Your task to perform on an android device: snooze an email in the gmail app Image 0: 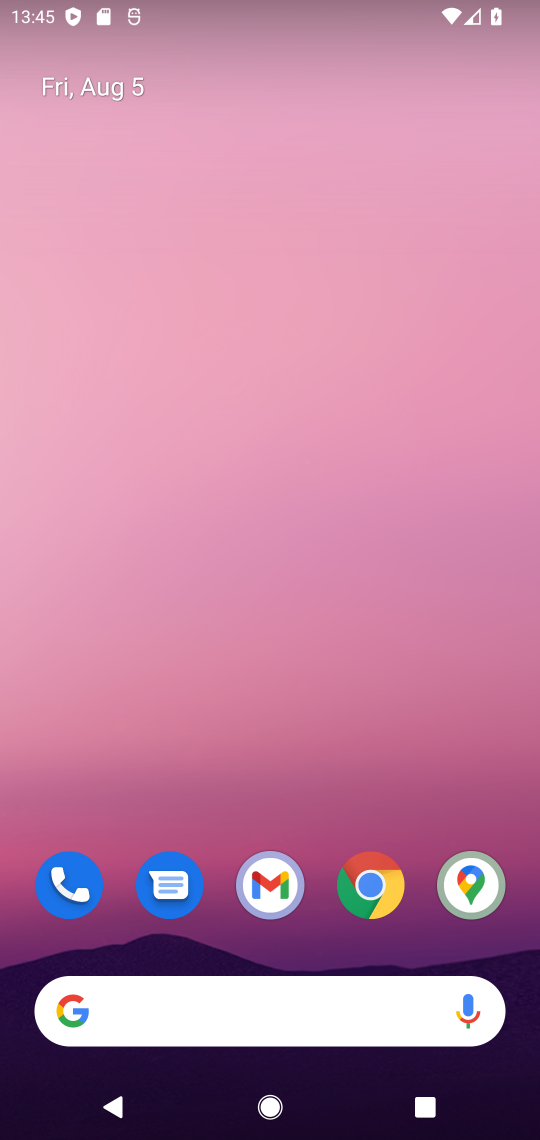
Step 0: click (258, 882)
Your task to perform on an android device: snooze an email in the gmail app Image 1: 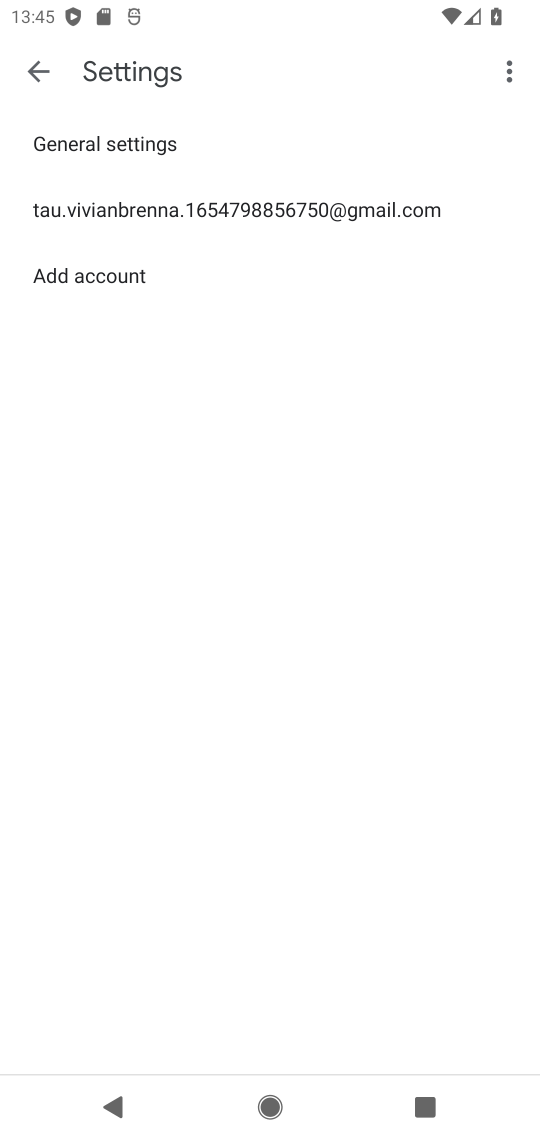
Step 1: click (31, 82)
Your task to perform on an android device: snooze an email in the gmail app Image 2: 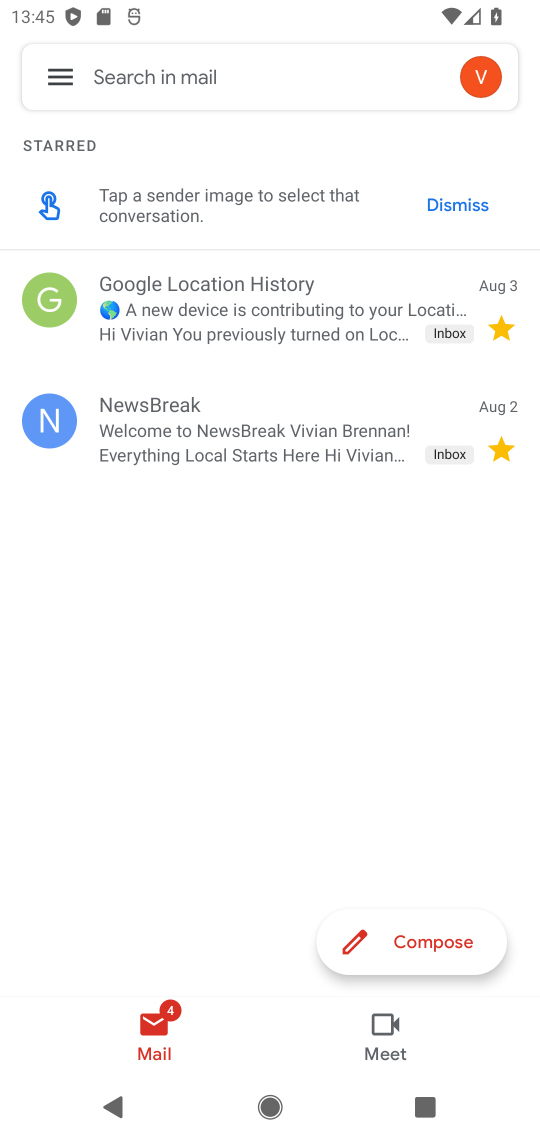
Step 2: click (348, 467)
Your task to perform on an android device: snooze an email in the gmail app Image 3: 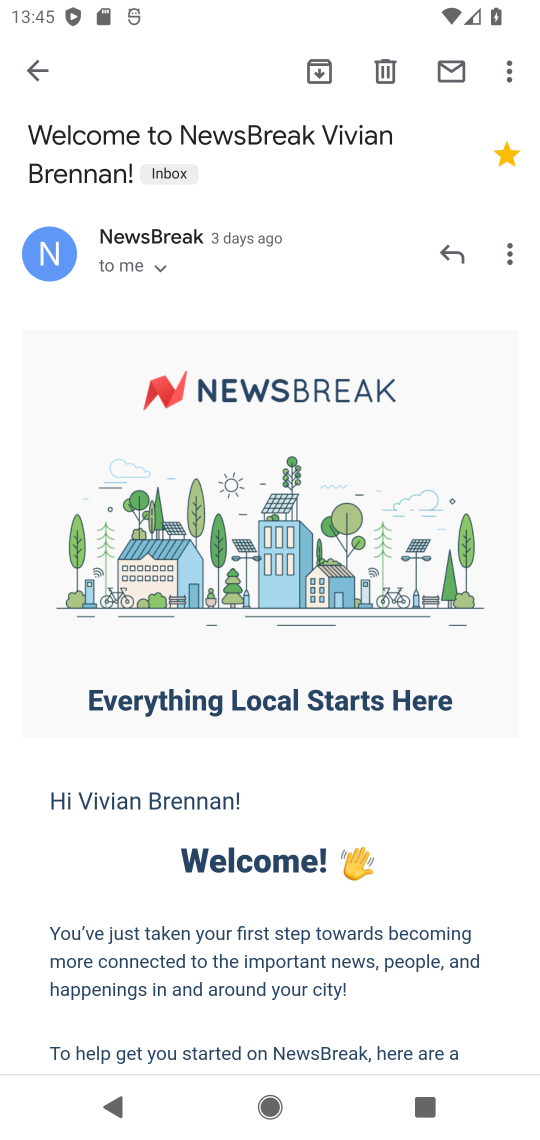
Step 3: click (513, 81)
Your task to perform on an android device: snooze an email in the gmail app Image 4: 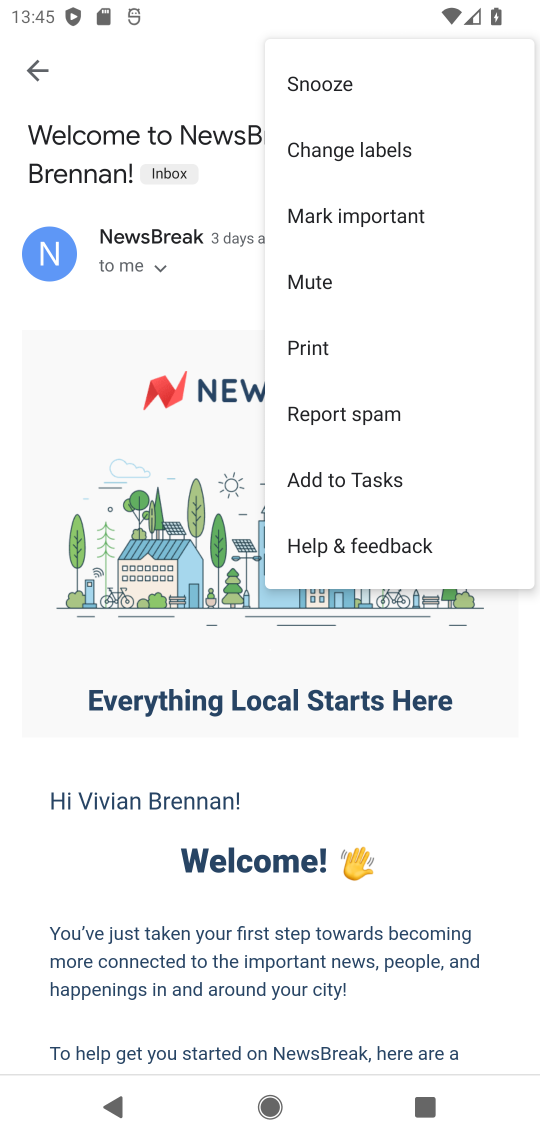
Step 4: click (324, 81)
Your task to perform on an android device: snooze an email in the gmail app Image 5: 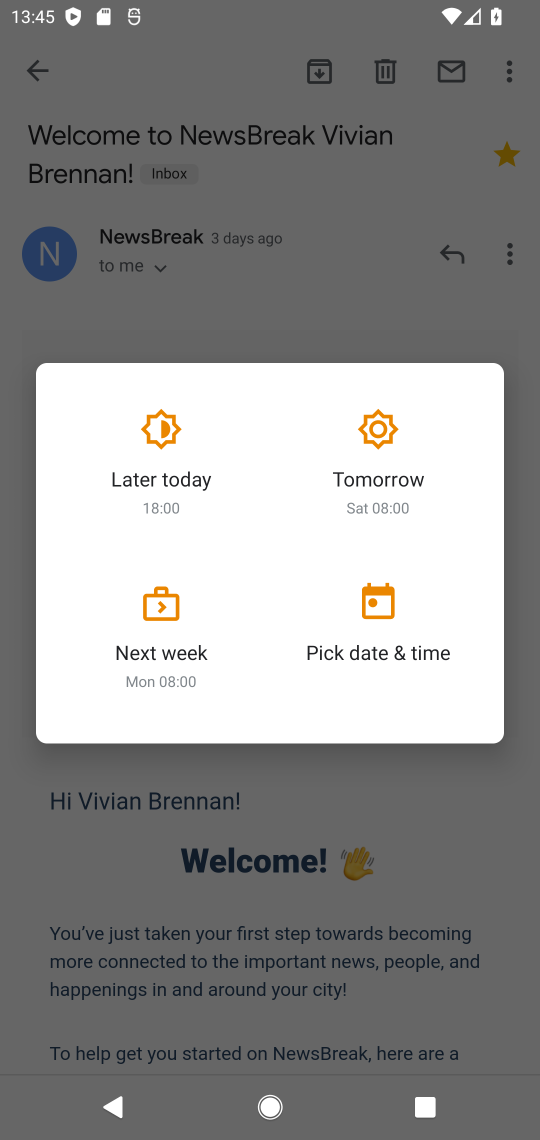
Step 5: click (191, 470)
Your task to perform on an android device: snooze an email in the gmail app Image 6: 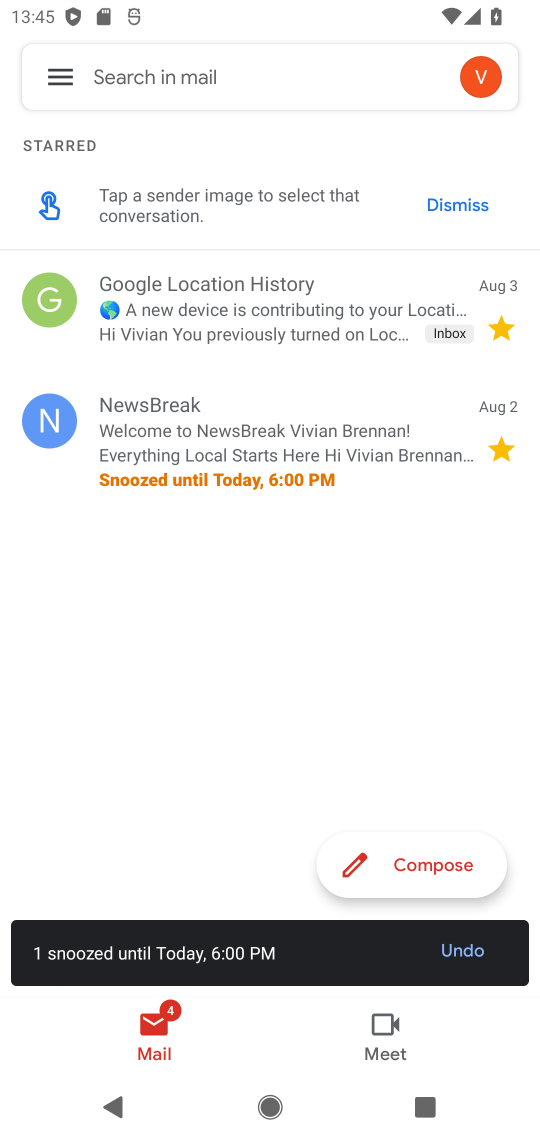
Step 6: task complete